Your task to perform on an android device: turn notification dots on Image 0: 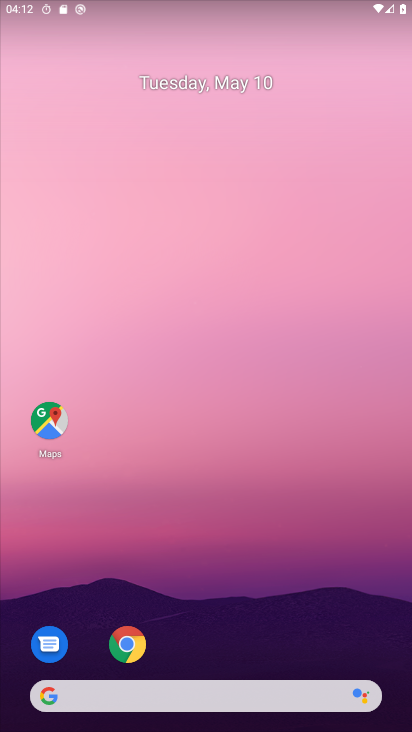
Step 0: drag from (225, 654) to (276, 68)
Your task to perform on an android device: turn notification dots on Image 1: 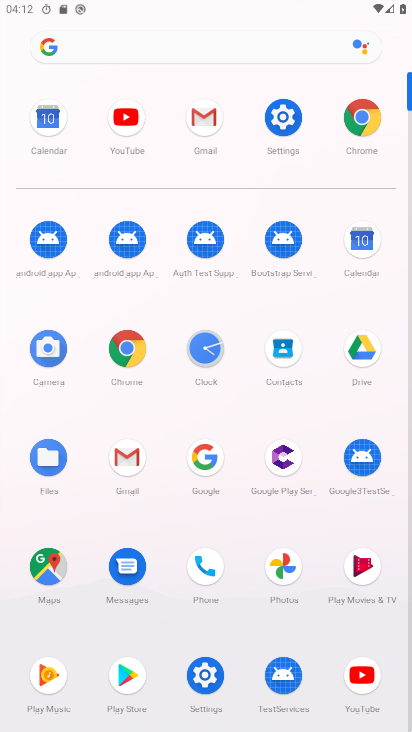
Step 1: click (277, 117)
Your task to perform on an android device: turn notification dots on Image 2: 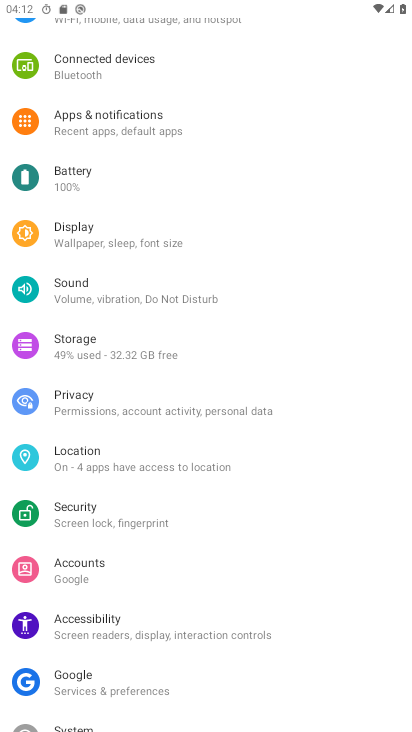
Step 2: click (133, 121)
Your task to perform on an android device: turn notification dots on Image 3: 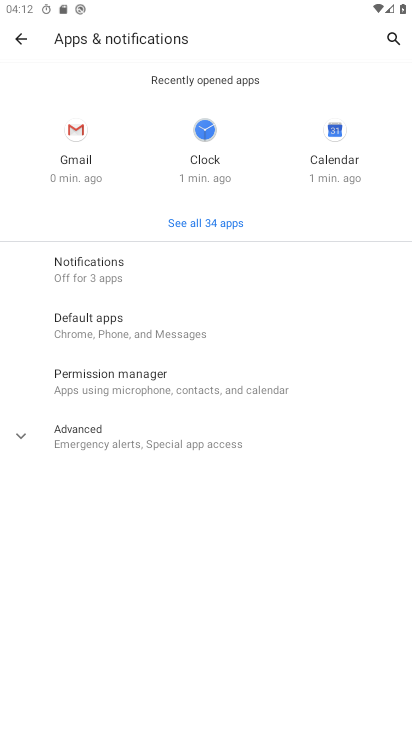
Step 3: click (138, 265)
Your task to perform on an android device: turn notification dots on Image 4: 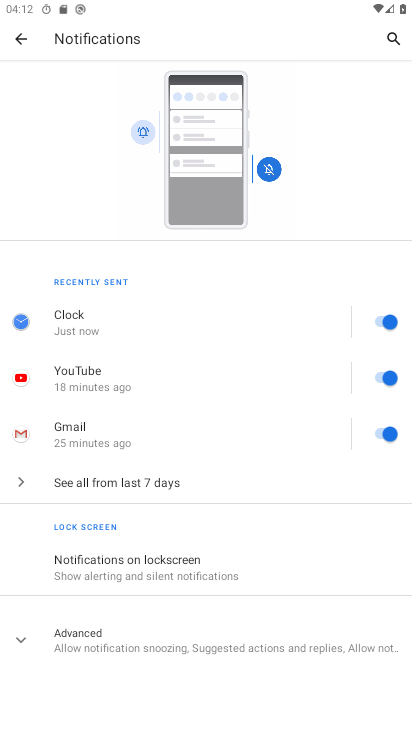
Step 4: click (118, 636)
Your task to perform on an android device: turn notification dots on Image 5: 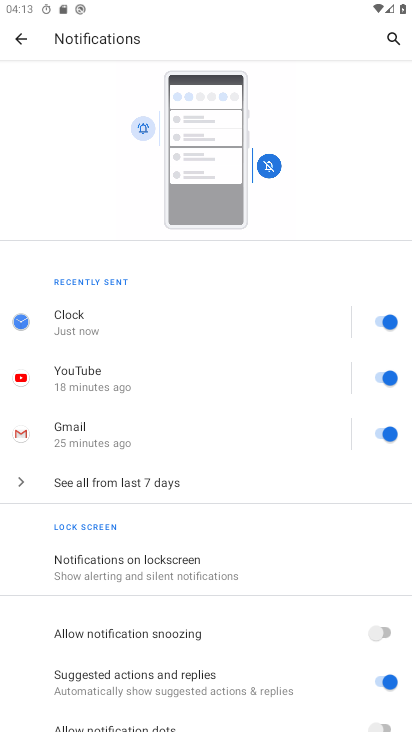
Step 5: drag from (209, 644) to (229, 465)
Your task to perform on an android device: turn notification dots on Image 6: 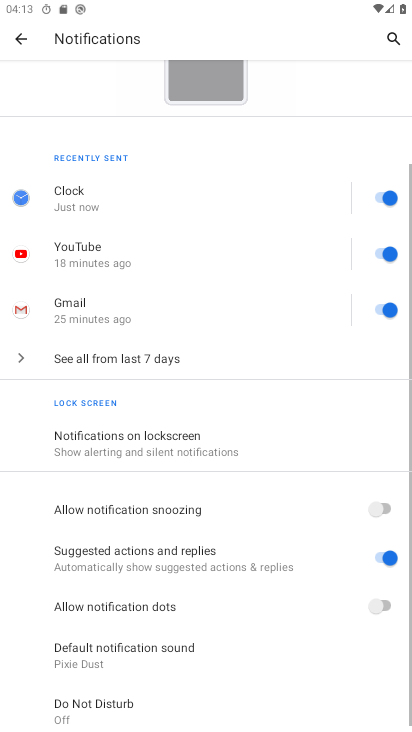
Step 6: drag from (236, 347) to (245, 283)
Your task to perform on an android device: turn notification dots on Image 7: 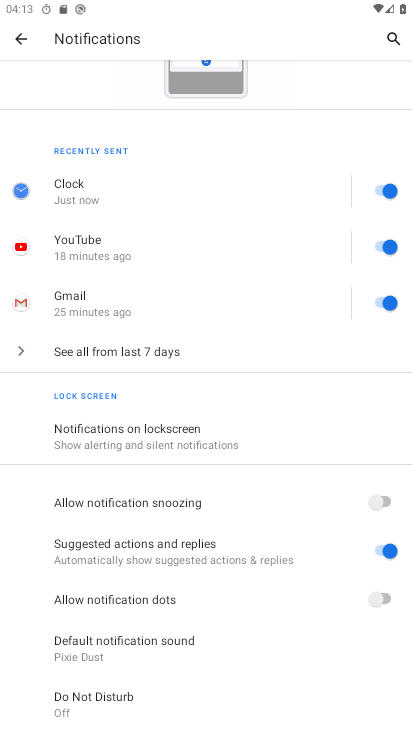
Step 7: click (376, 600)
Your task to perform on an android device: turn notification dots on Image 8: 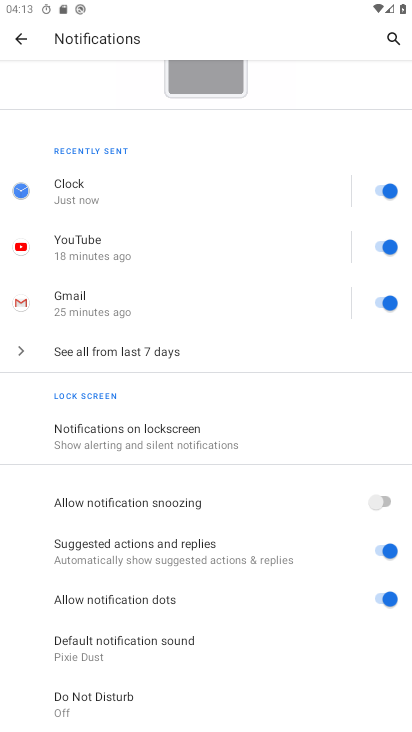
Step 8: task complete